Your task to perform on an android device: uninstall "Microsoft Authenticator" Image 0: 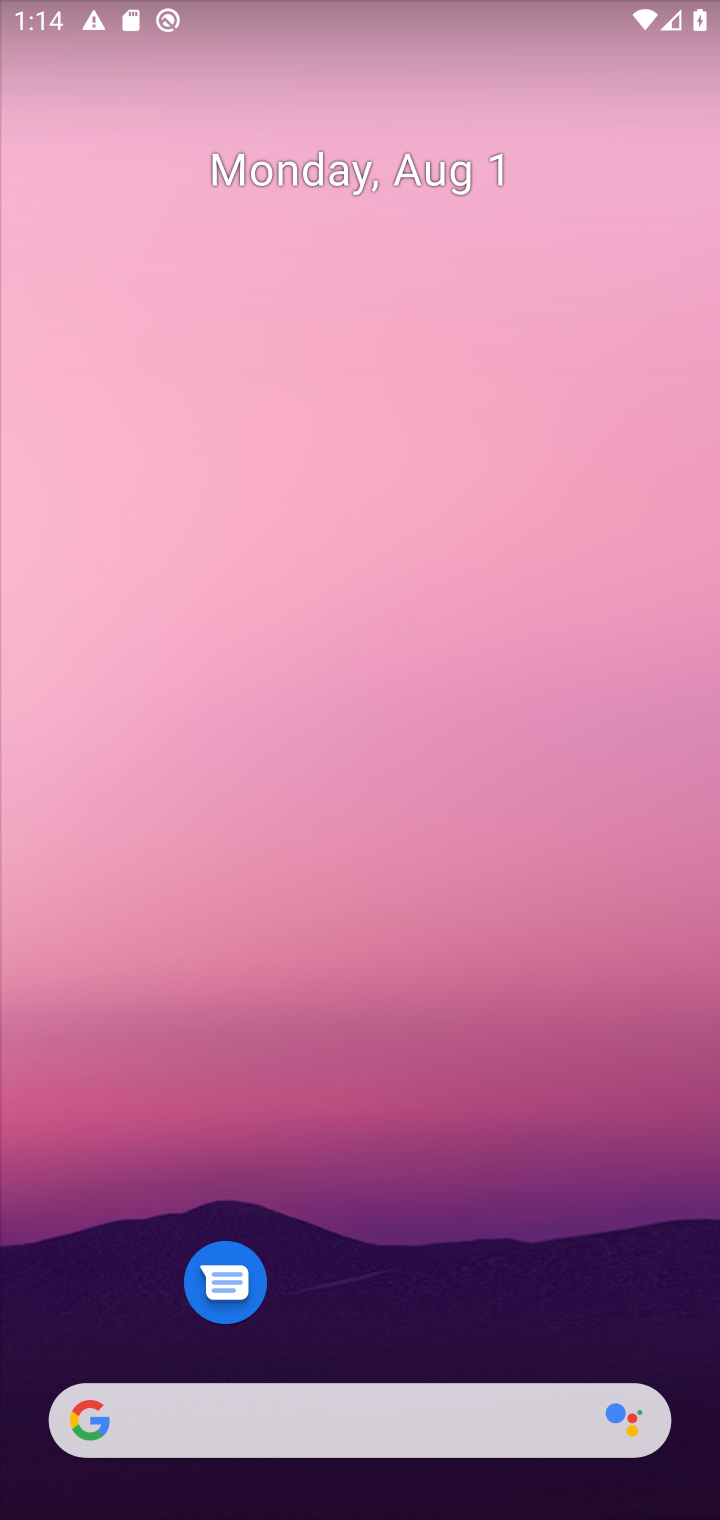
Step 0: drag from (311, 1244) to (239, 201)
Your task to perform on an android device: uninstall "Microsoft Authenticator" Image 1: 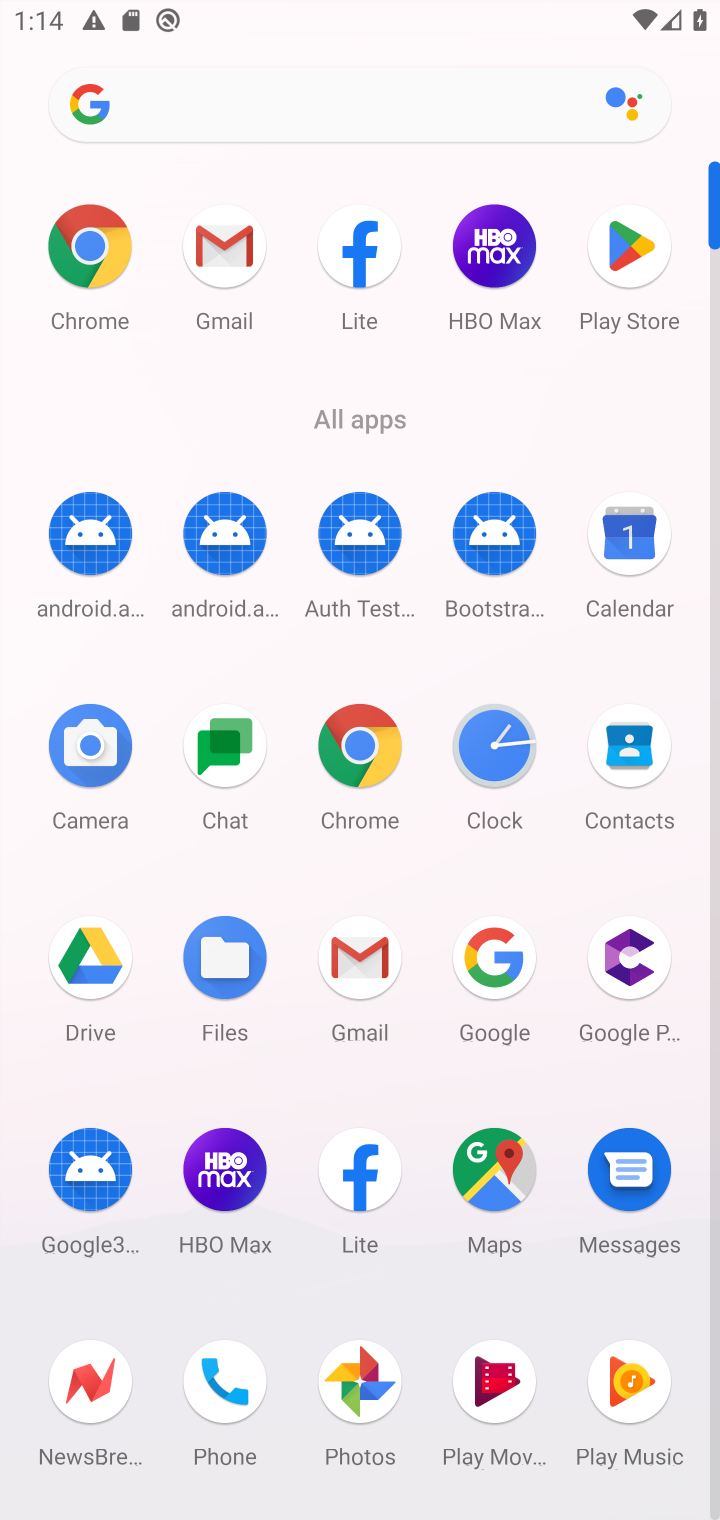
Step 1: click (629, 249)
Your task to perform on an android device: uninstall "Microsoft Authenticator" Image 2: 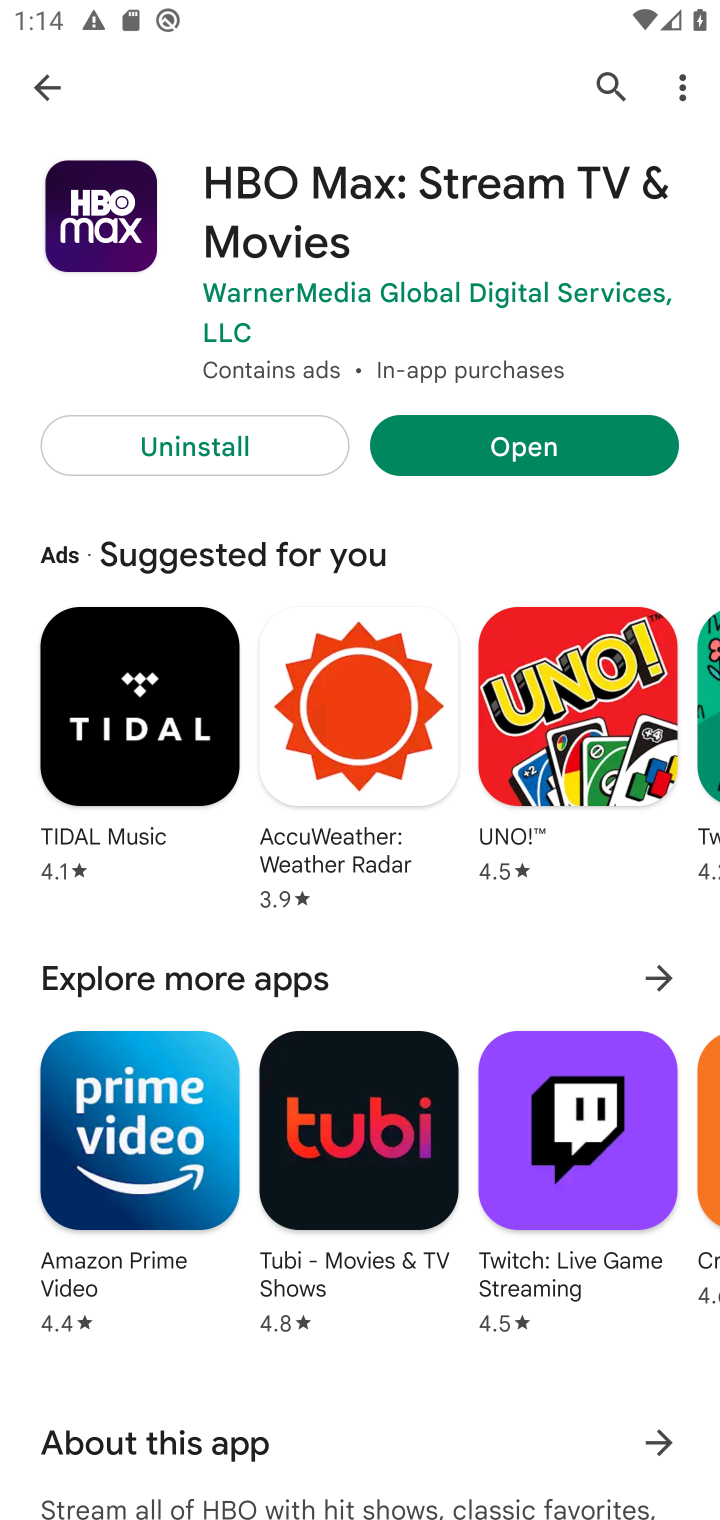
Step 2: click (15, 81)
Your task to perform on an android device: uninstall "Microsoft Authenticator" Image 3: 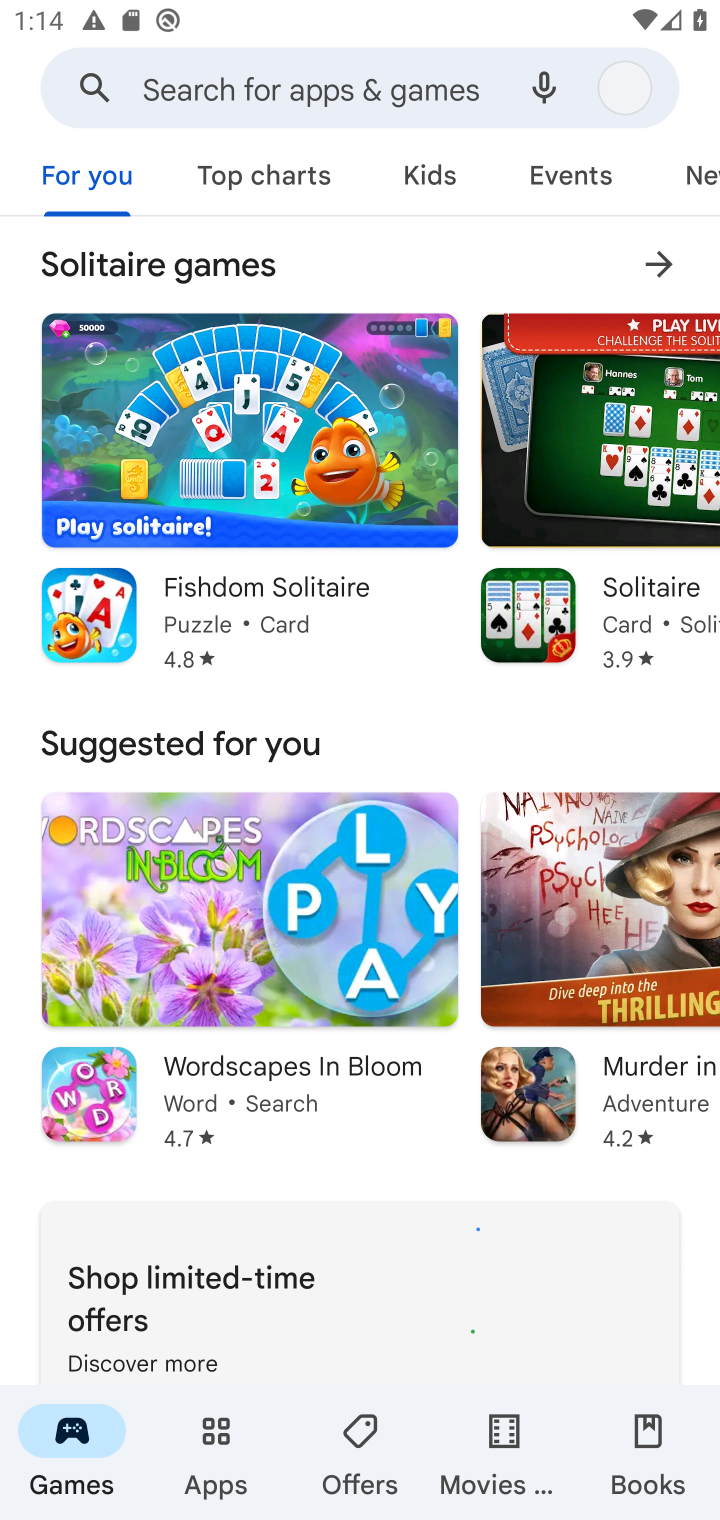
Step 3: click (201, 91)
Your task to perform on an android device: uninstall "Microsoft Authenticator" Image 4: 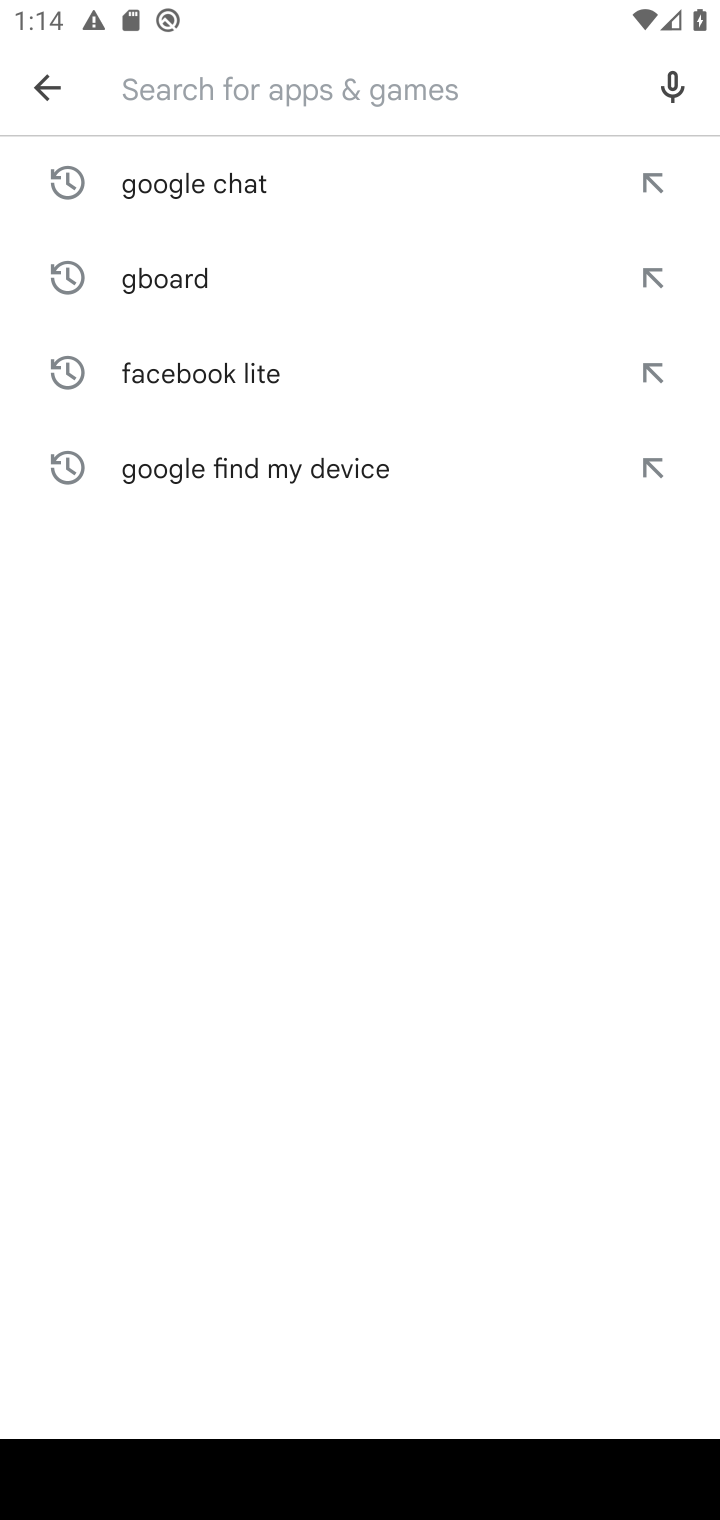
Step 4: type "Microsoft Authenticator"
Your task to perform on an android device: uninstall "Microsoft Authenticator" Image 5: 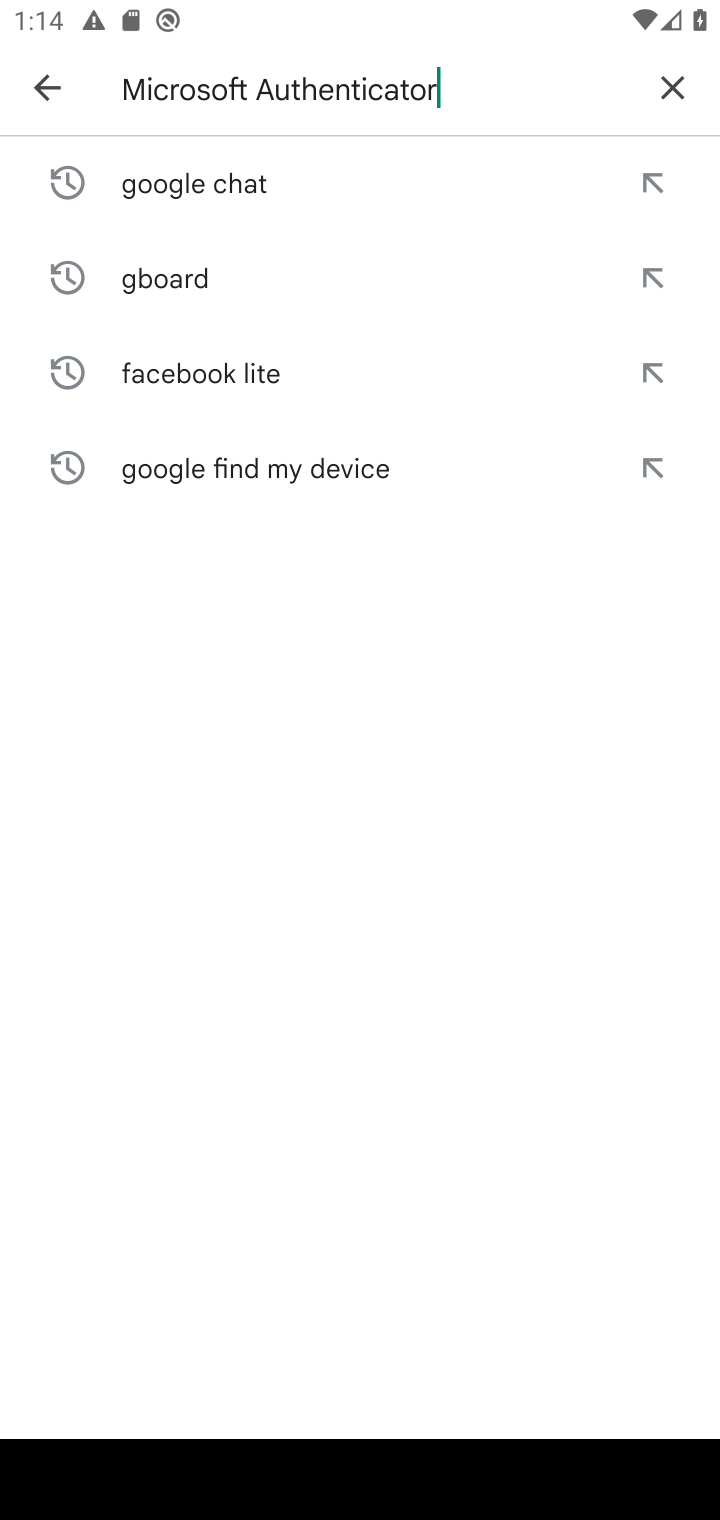
Step 5: type ""
Your task to perform on an android device: uninstall "Microsoft Authenticator" Image 6: 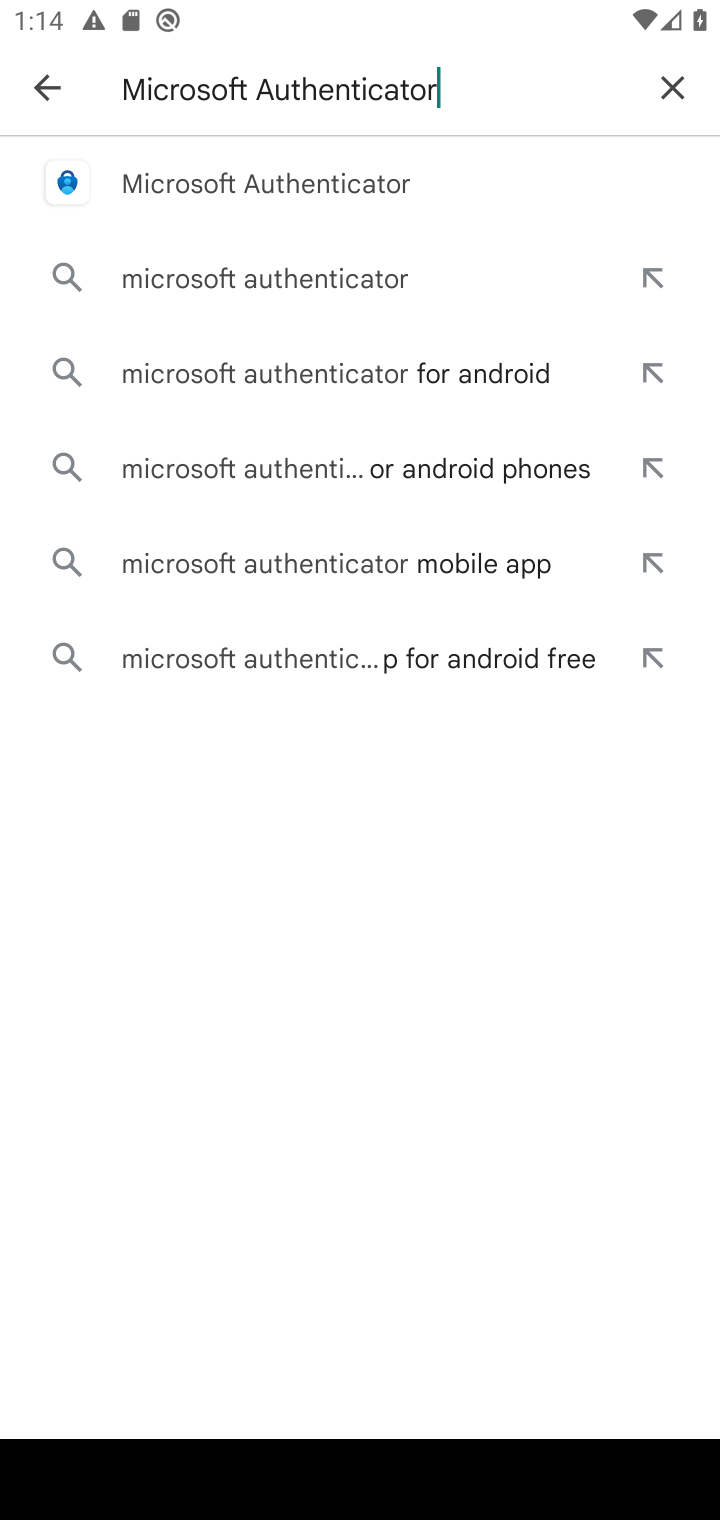
Step 6: click (214, 172)
Your task to perform on an android device: uninstall "Microsoft Authenticator" Image 7: 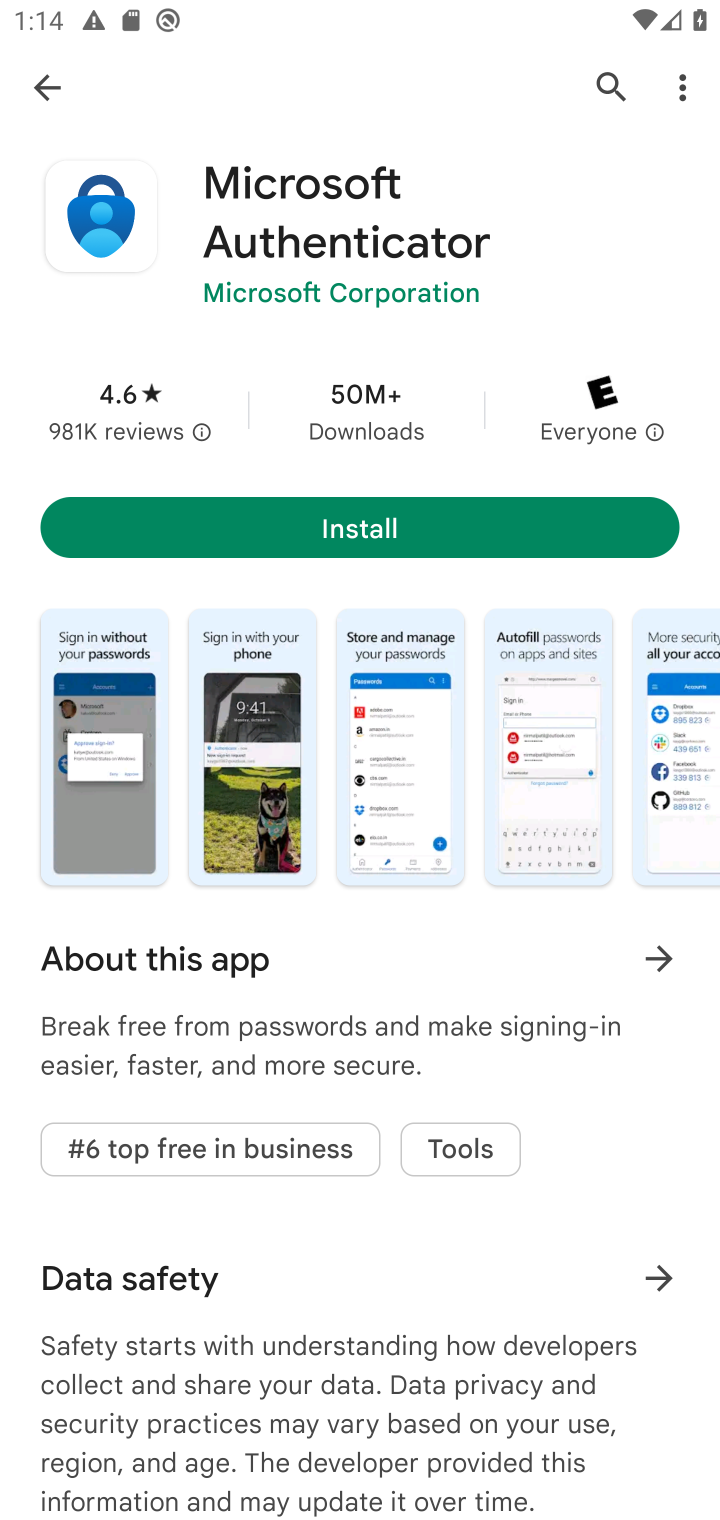
Step 7: task complete